Your task to perform on an android device: Search for a runner rug on Crate & Barrel. Image 0: 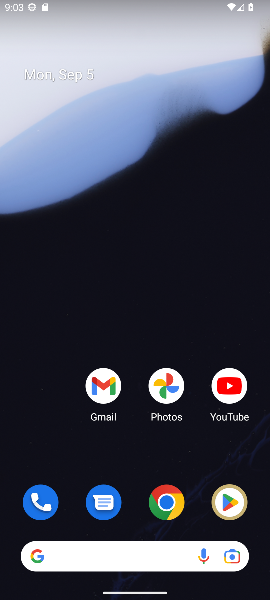
Step 0: drag from (67, 457) to (36, 15)
Your task to perform on an android device: Search for a runner rug on Crate & Barrel. Image 1: 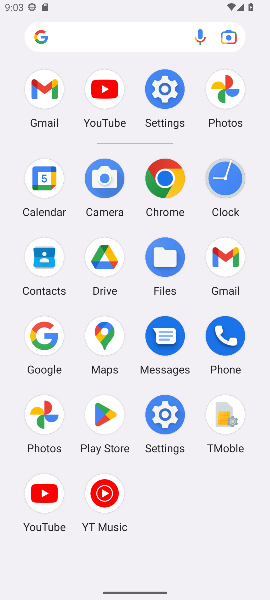
Step 1: click (42, 341)
Your task to perform on an android device: Search for a runner rug on Crate & Barrel. Image 2: 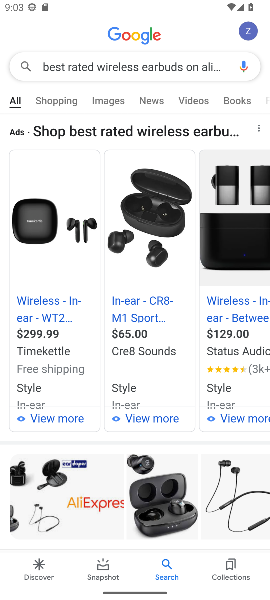
Step 2: press back button
Your task to perform on an android device: Search for a runner rug on Crate & Barrel. Image 3: 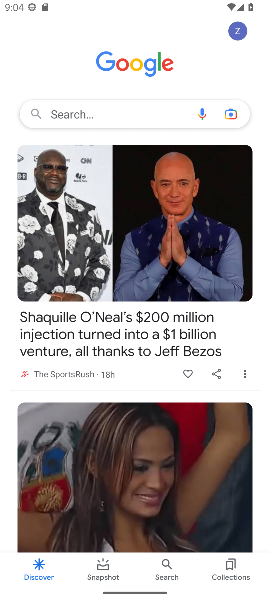
Step 3: click (91, 110)
Your task to perform on an android device: Search for a runner rug on Crate & Barrel. Image 4: 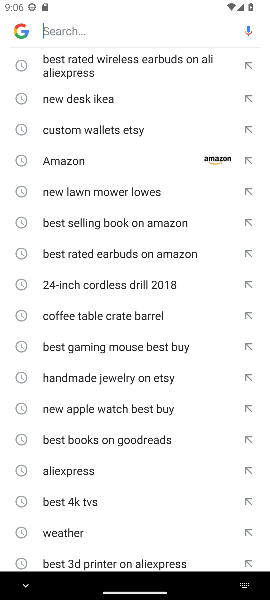
Step 4: type "runner rug on Crate & Barrel"
Your task to perform on an android device: Search for a runner rug on Crate & Barrel. Image 5: 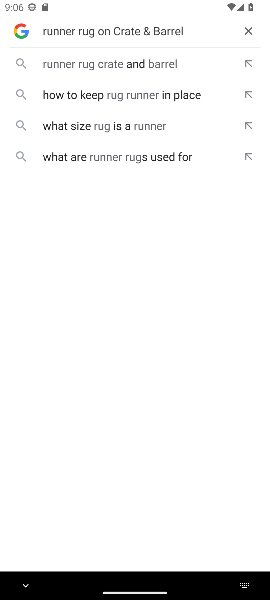
Step 5: click (121, 73)
Your task to perform on an android device: Search for a runner rug on Crate & Barrel. Image 6: 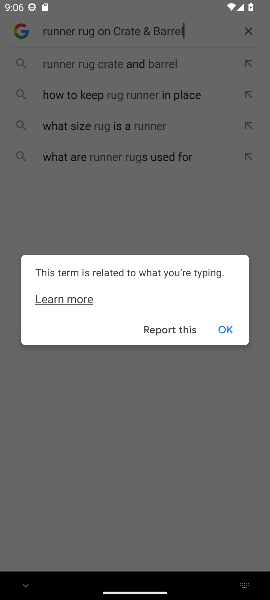
Step 6: click (218, 331)
Your task to perform on an android device: Search for a runner rug on Crate & Barrel. Image 7: 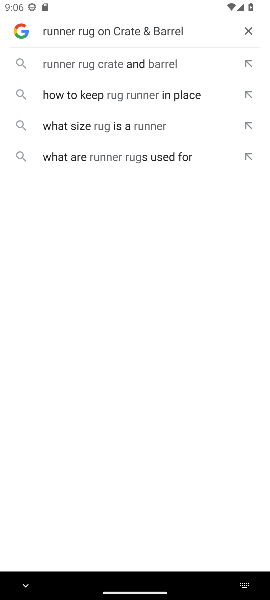
Step 7: click (113, 71)
Your task to perform on an android device: Search for a runner rug on Crate & Barrel. Image 8: 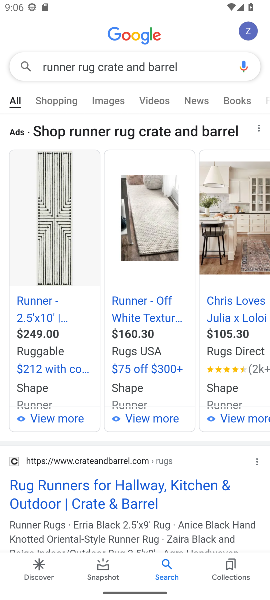
Step 8: task complete